Your task to perform on an android device: allow notifications from all sites in the chrome app Image 0: 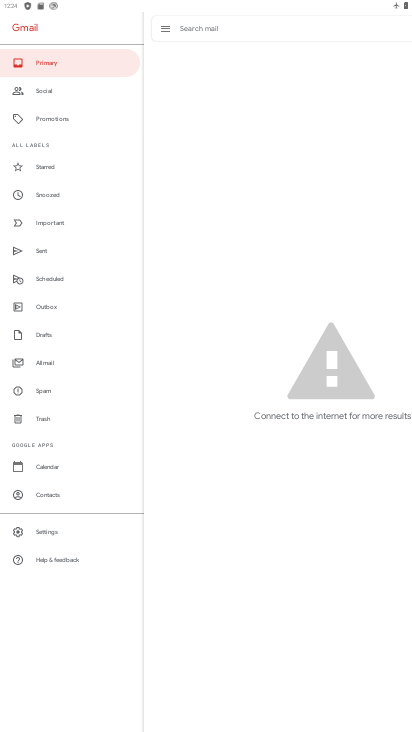
Step 0: press home button
Your task to perform on an android device: allow notifications from all sites in the chrome app Image 1: 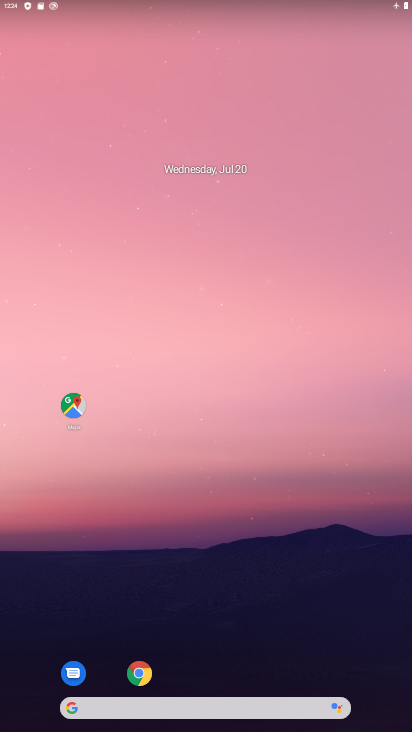
Step 1: drag from (251, 643) to (205, 191)
Your task to perform on an android device: allow notifications from all sites in the chrome app Image 2: 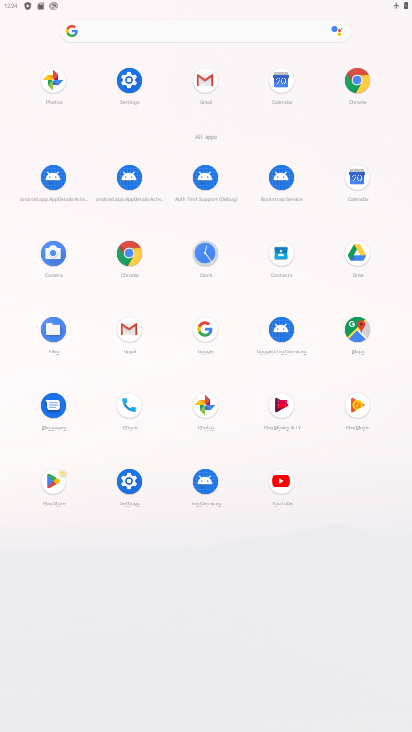
Step 2: click (352, 80)
Your task to perform on an android device: allow notifications from all sites in the chrome app Image 3: 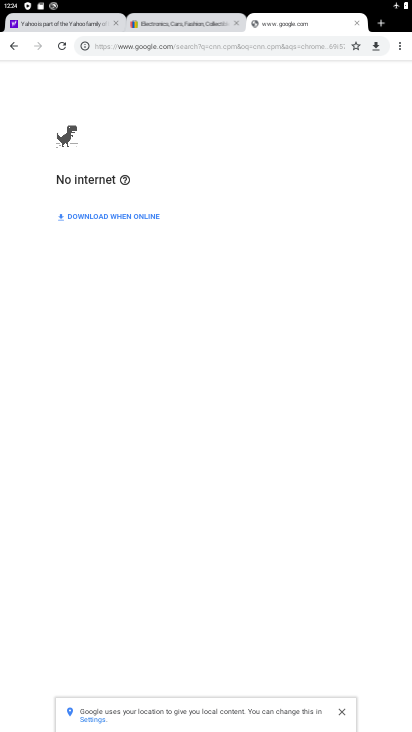
Step 3: click (399, 50)
Your task to perform on an android device: allow notifications from all sites in the chrome app Image 4: 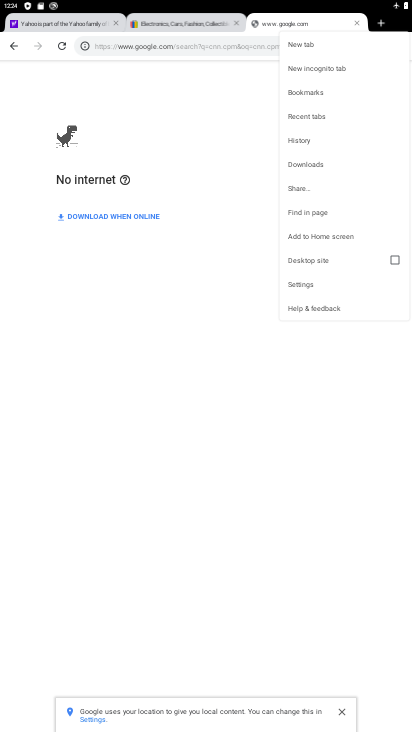
Step 4: click (321, 285)
Your task to perform on an android device: allow notifications from all sites in the chrome app Image 5: 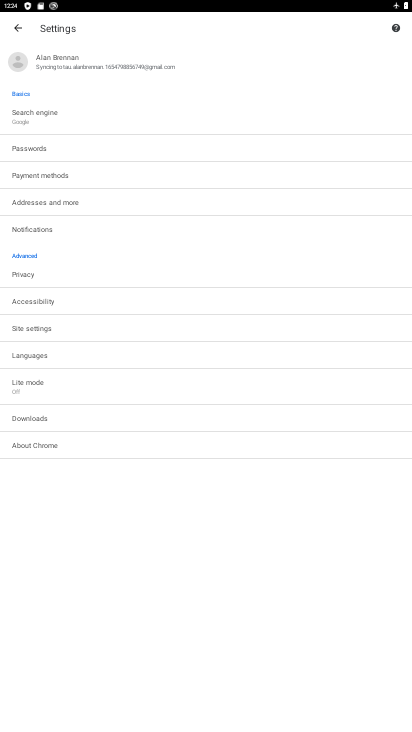
Step 5: click (69, 325)
Your task to perform on an android device: allow notifications from all sites in the chrome app Image 6: 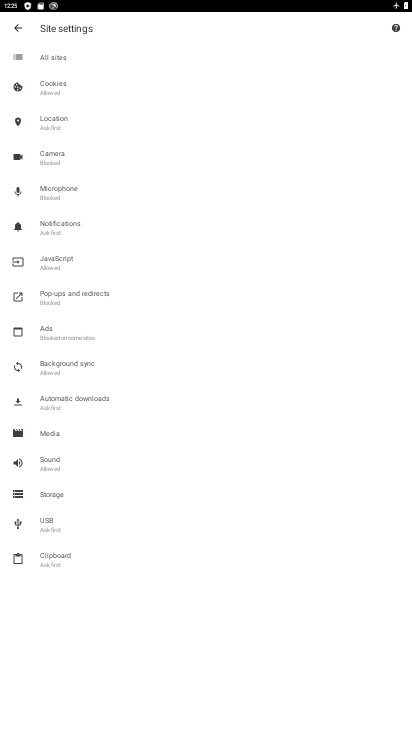
Step 6: click (81, 219)
Your task to perform on an android device: allow notifications from all sites in the chrome app Image 7: 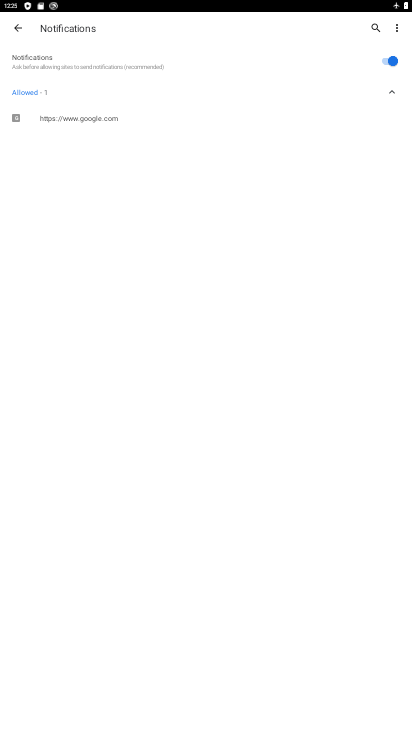
Step 7: task complete